Your task to perform on an android device: What's the weather today? Image 0: 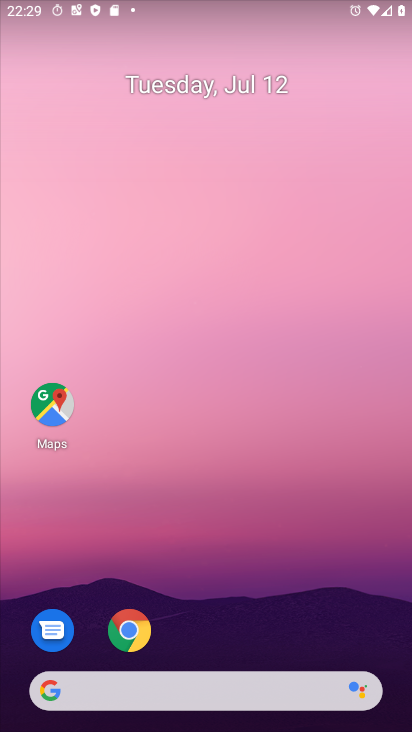
Step 0: click (171, 689)
Your task to perform on an android device: What's the weather today? Image 1: 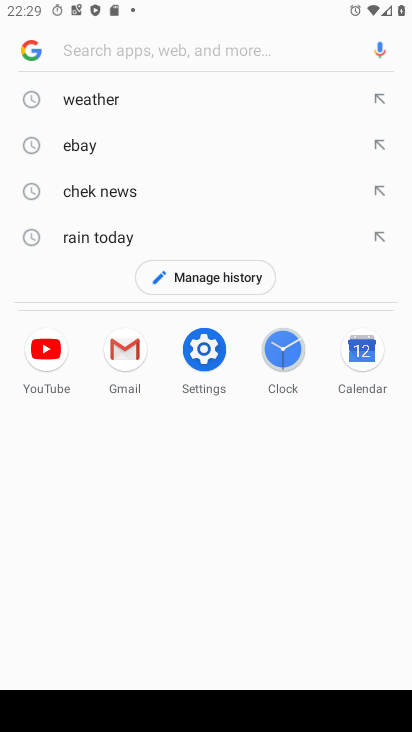
Step 1: click (95, 92)
Your task to perform on an android device: What's the weather today? Image 2: 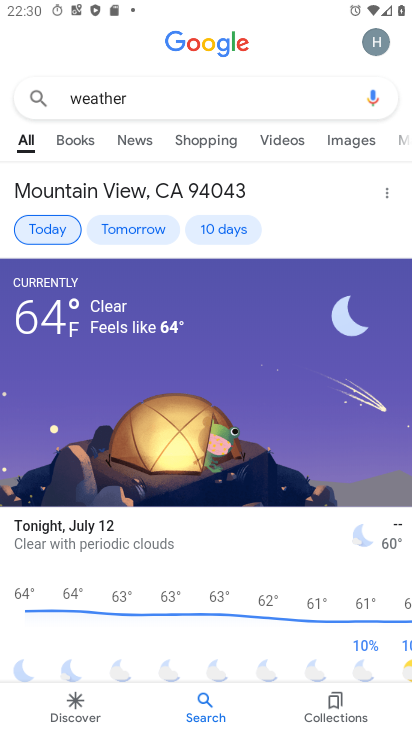
Step 2: task complete